Your task to perform on an android device: Open settings on Google Maps Image 0: 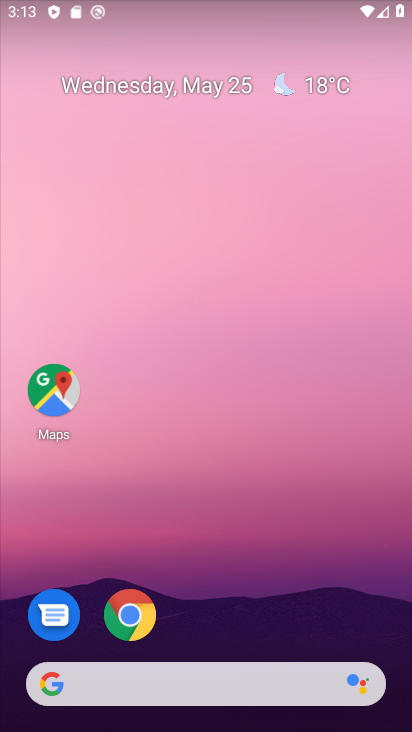
Step 0: drag from (286, 616) to (304, 16)
Your task to perform on an android device: Open settings on Google Maps Image 1: 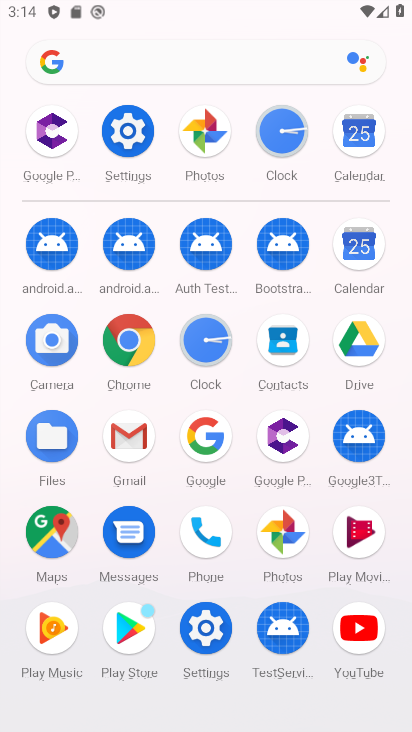
Step 1: click (58, 523)
Your task to perform on an android device: Open settings on Google Maps Image 2: 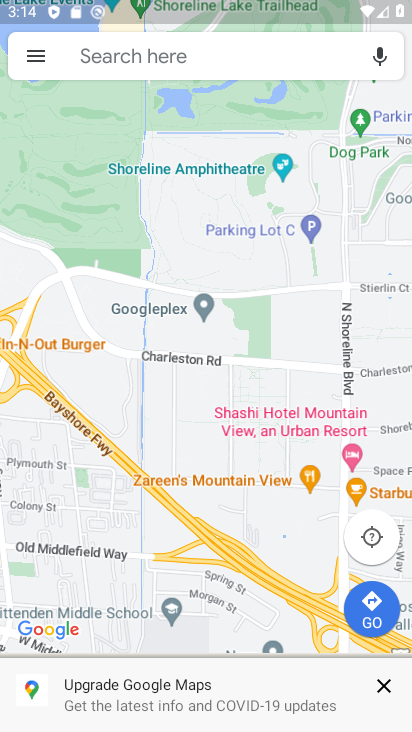
Step 2: click (40, 67)
Your task to perform on an android device: Open settings on Google Maps Image 3: 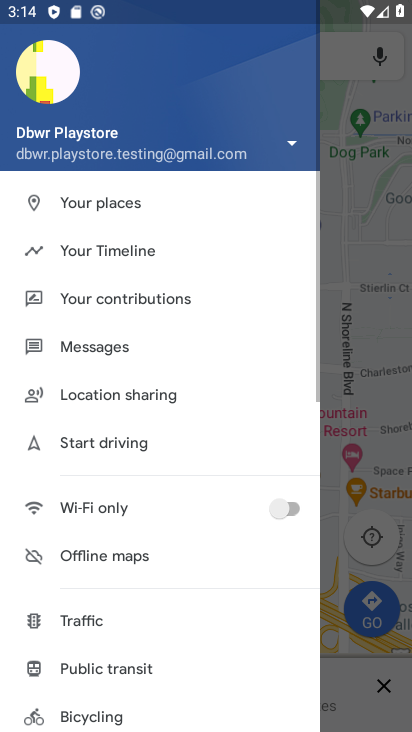
Step 3: drag from (162, 703) to (172, 249)
Your task to perform on an android device: Open settings on Google Maps Image 4: 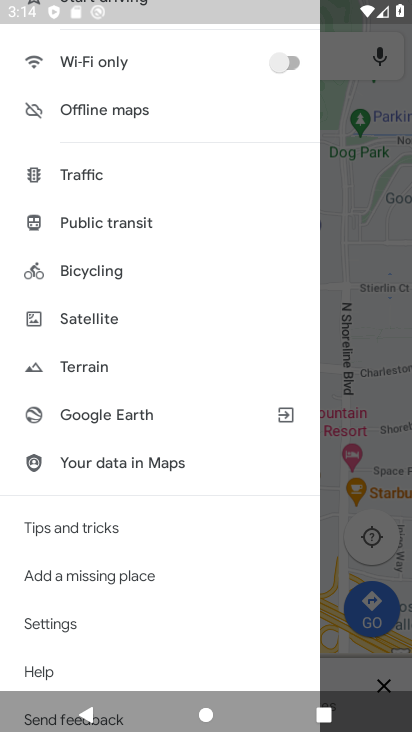
Step 4: click (66, 627)
Your task to perform on an android device: Open settings on Google Maps Image 5: 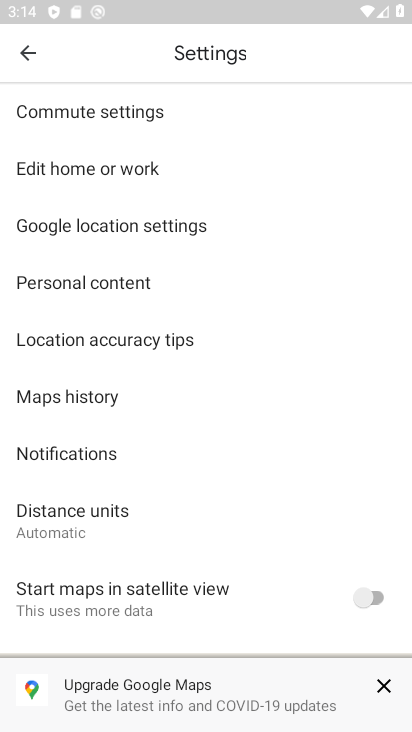
Step 5: task complete